Your task to perform on an android device: Open sound settings Image 0: 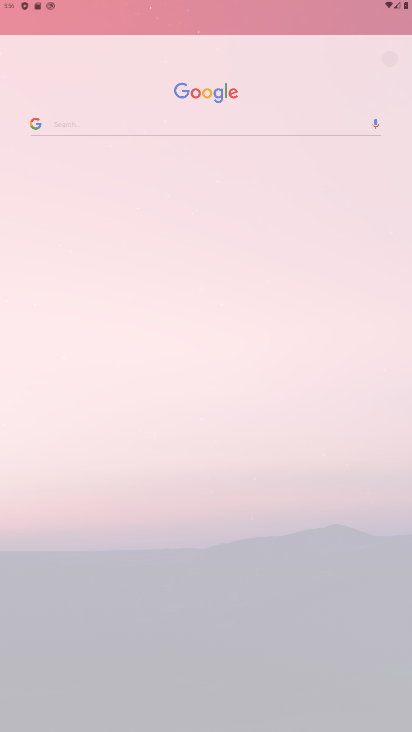
Step 0: press home button
Your task to perform on an android device: Open sound settings Image 1: 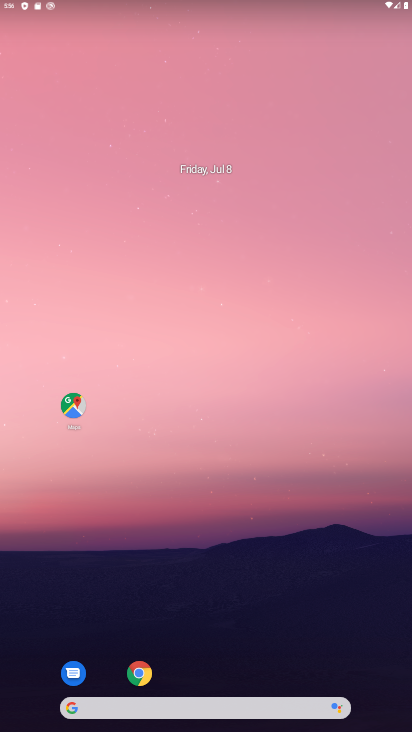
Step 1: drag from (333, 619) to (393, 97)
Your task to perform on an android device: Open sound settings Image 2: 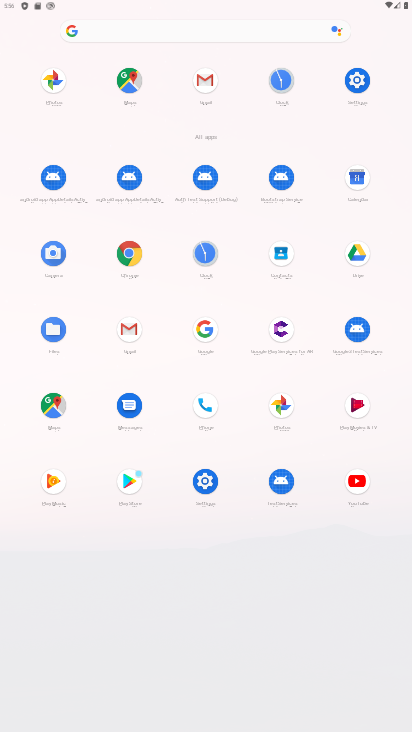
Step 2: click (360, 83)
Your task to perform on an android device: Open sound settings Image 3: 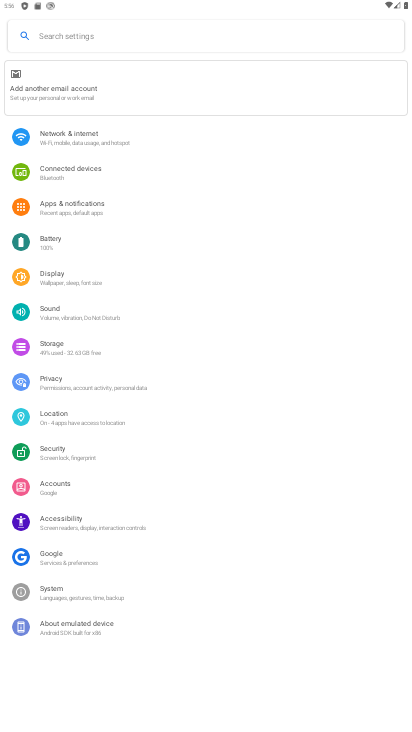
Step 3: click (59, 315)
Your task to perform on an android device: Open sound settings Image 4: 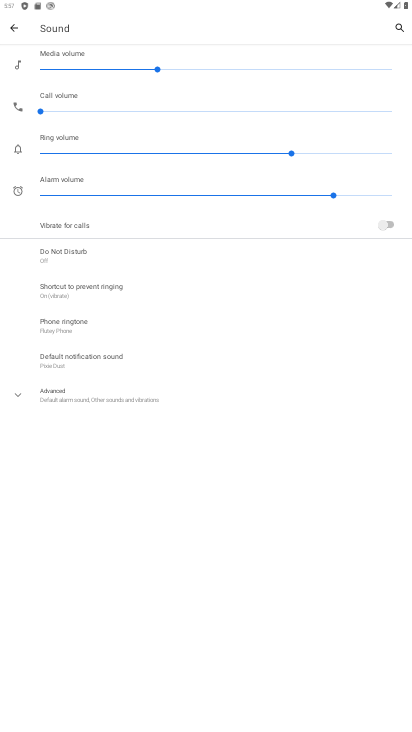
Step 4: task complete